Your task to perform on an android device: Open the Play Movies app and select the watchlist tab. Image 0: 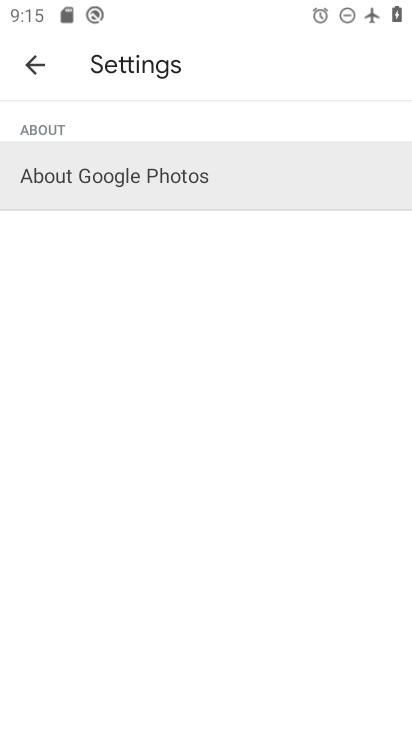
Step 0: press home button
Your task to perform on an android device: Open the Play Movies app and select the watchlist tab. Image 1: 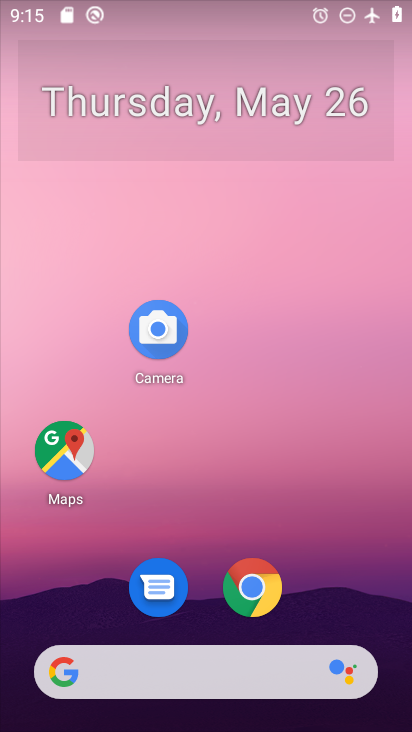
Step 1: drag from (197, 622) to (216, 243)
Your task to perform on an android device: Open the Play Movies app and select the watchlist tab. Image 2: 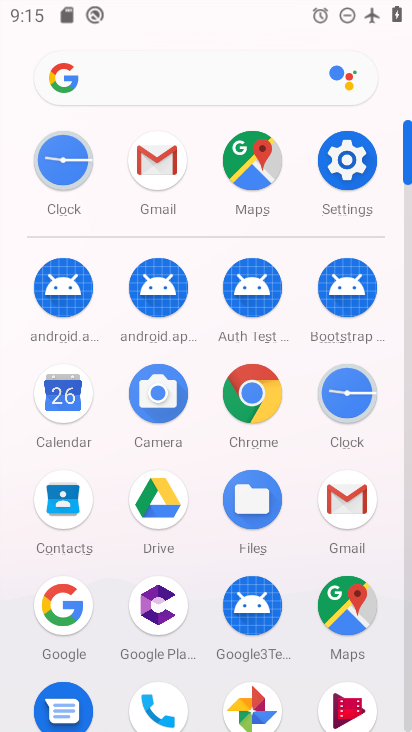
Step 2: drag from (285, 620) to (301, 453)
Your task to perform on an android device: Open the Play Movies app and select the watchlist tab. Image 3: 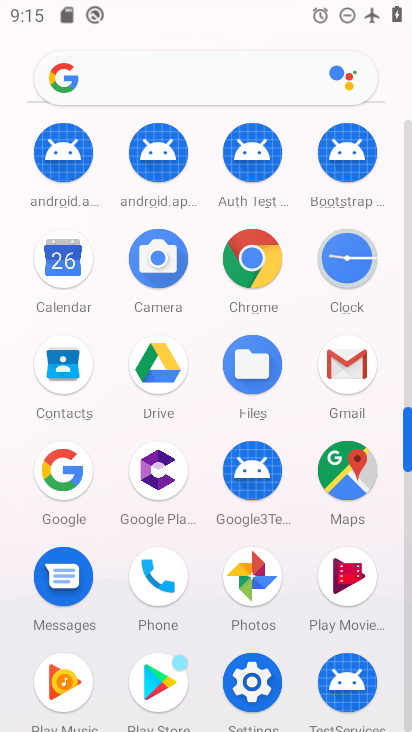
Step 3: click (337, 592)
Your task to perform on an android device: Open the Play Movies app and select the watchlist tab. Image 4: 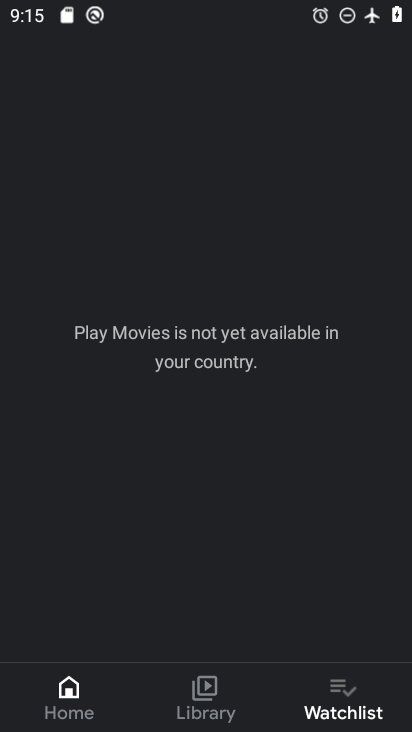
Step 4: click (322, 701)
Your task to perform on an android device: Open the Play Movies app and select the watchlist tab. Image 5: 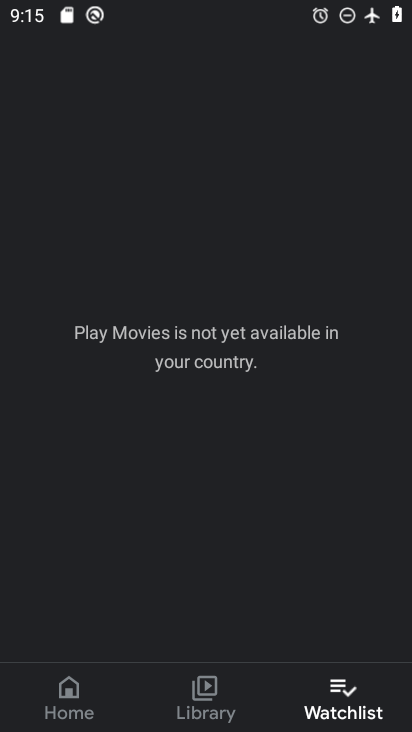
Step 5: task complete